Your task to perform on an android device: Open battery settings Image 0: 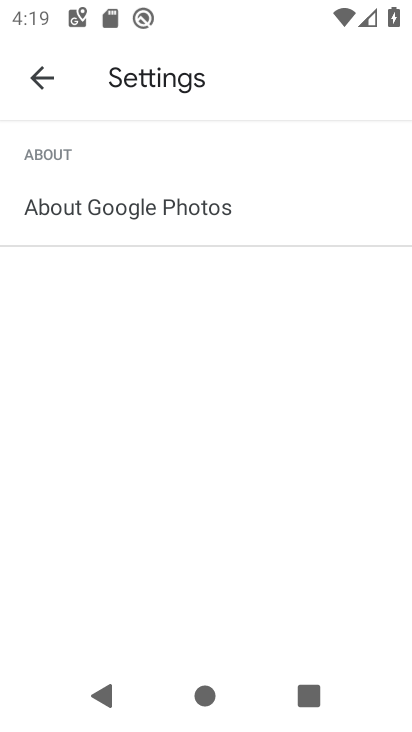
Step 0: press back button
Your task to perform on an android device: Open battery settings Image 1: 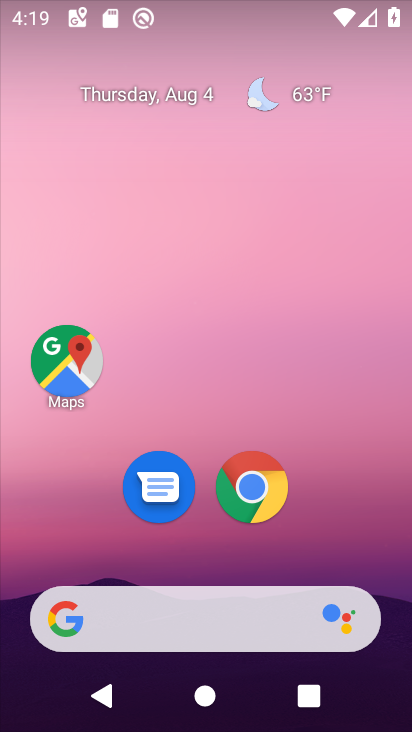
Step 1: drag from (241, 558) to (336, 34)
Your task to perform on an android device: Open battery settings Image 2: 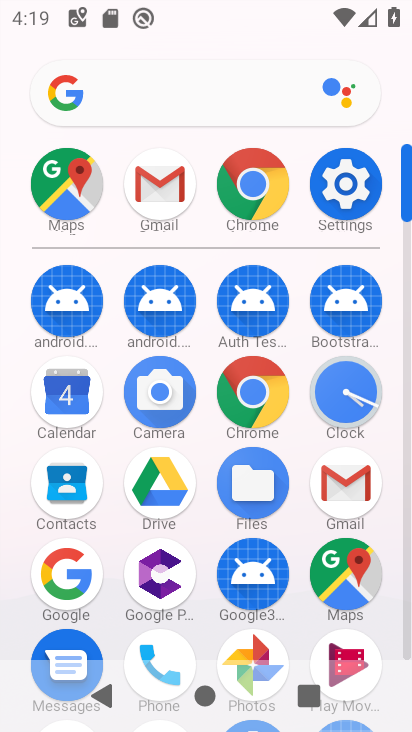
Step 2: click (348, 169)
Your task to perform on an android device: Open battery settings Image 3: 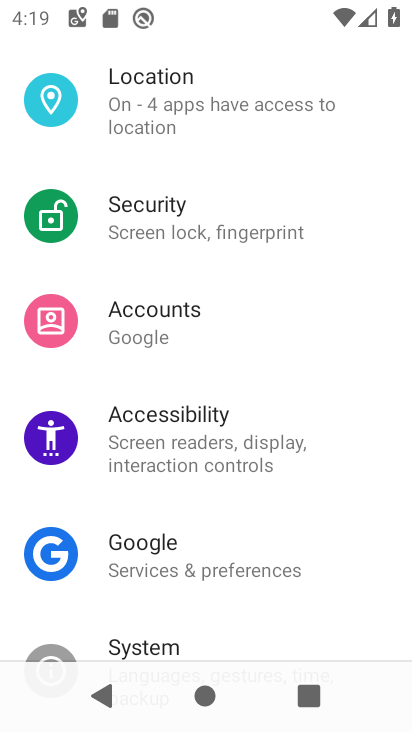
Step 3: drag from (246, 186) to (245, 615)
Your task to perform on an android device: Open battery settings Image 4: 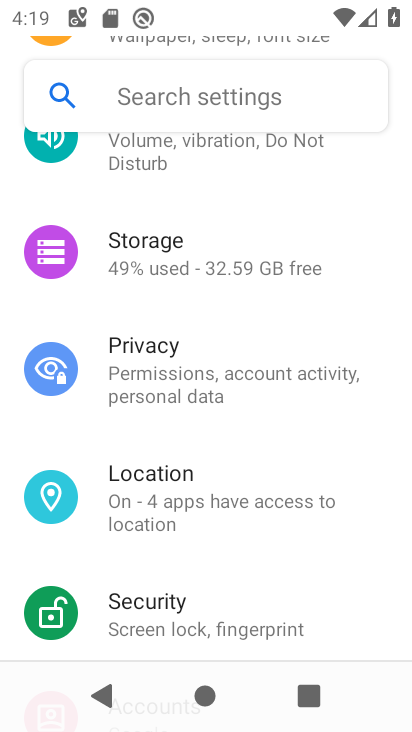
Step 4: drag from (250, 203) to (209, 580)
Your task to perform on an android device: Open battery settings Image 5: 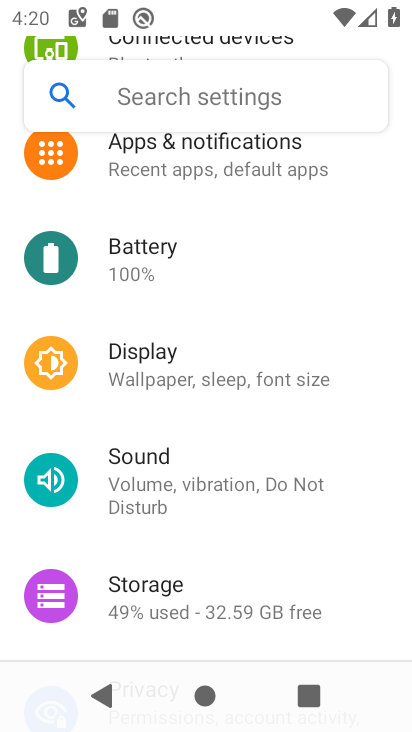
Step 5: click (125, 238)
Your task to perform on an android device: Open battery settings Image 6: 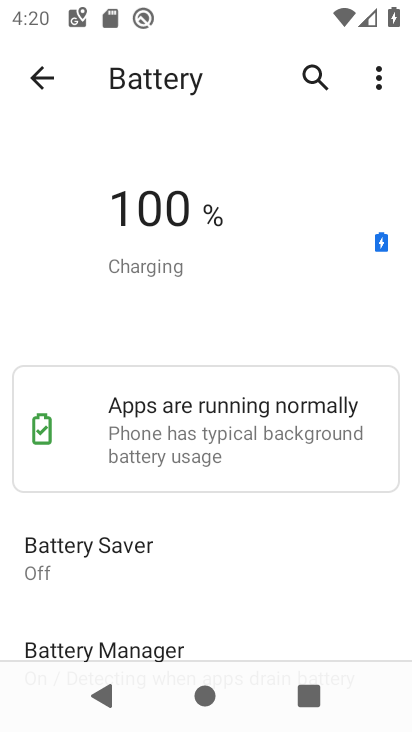
Step 6: task complete